Your task to perform on an android device: Go to wifi settings Image 0: 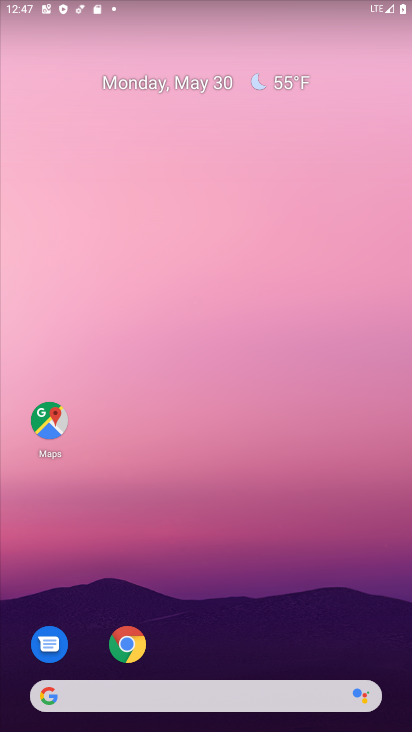
Step 0: click (359, 585)
Your task to perform on an android device: Go to wifi settings Image 1: 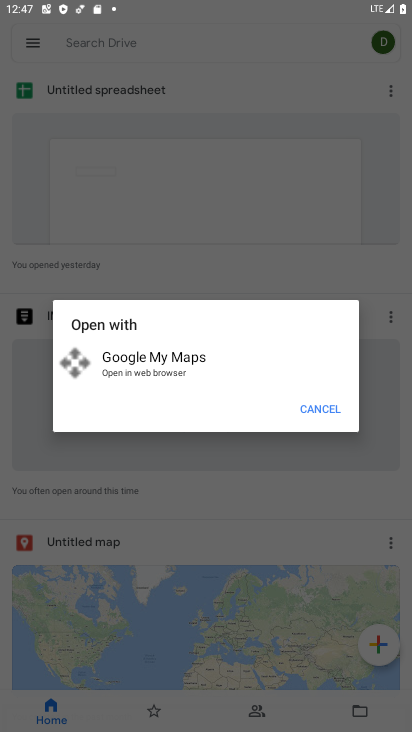
Step 1: press home button
Your task to perform on an android device: Go to wifi settings Image 2: 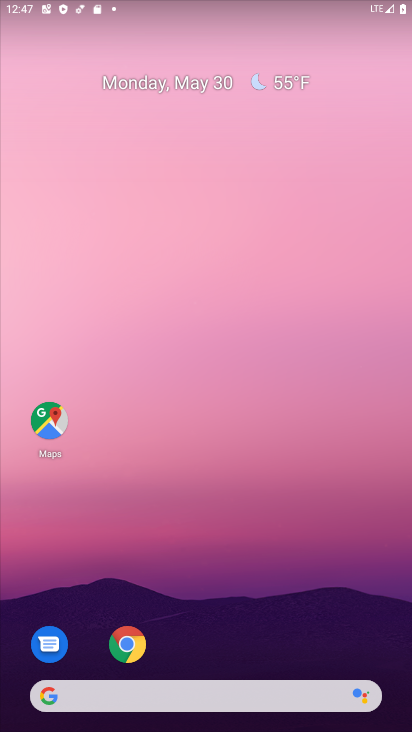
Step 2: drag from (328, 647) to (253, 164)
Your task to perform on an android device: Go to wifi settings Image 3: 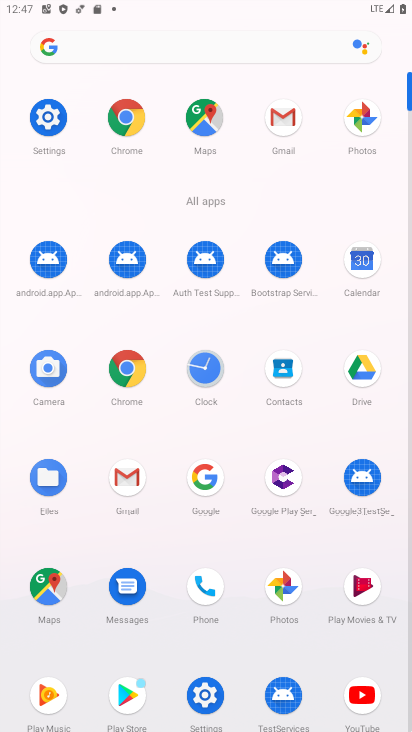
Step 3: click (52, 108)
Your task to perform on an android device: Go to wifi settings Image 4: 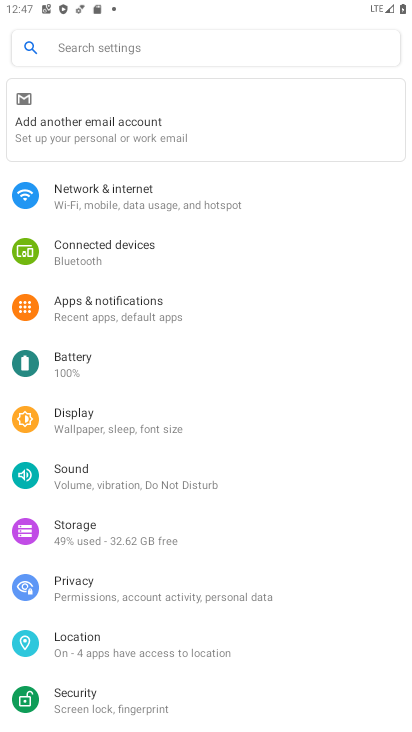
Step 4: click (69, 132)
Your task to perform on an android device: Go to wifi settings Image 5: 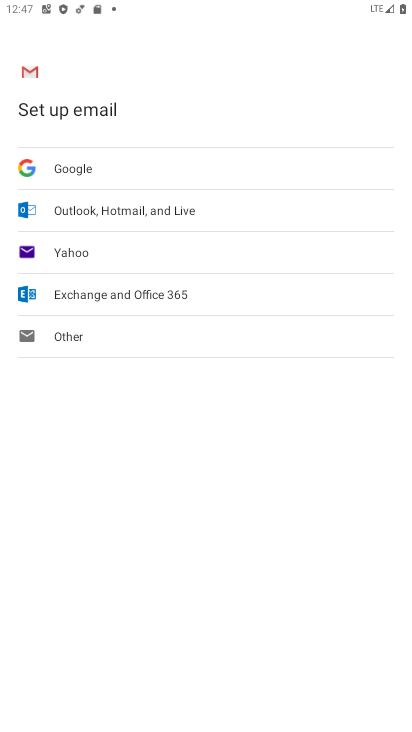
Step 5: click (138, 198)
Your task to perform on an android device: Go to wifi settings Image 6: 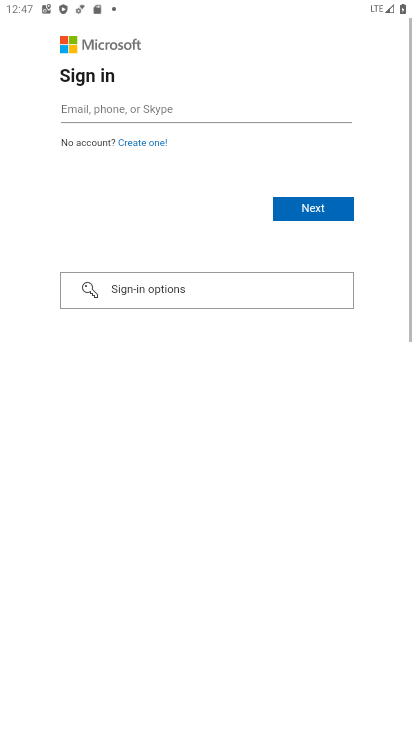
Step 6: press back button
Your task to perform on an android device: Go to wifi settings Image 7: 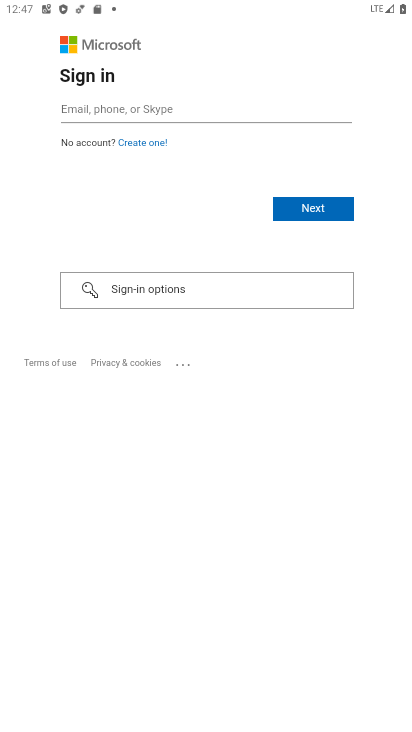
Step 7: press back button
Your task to perform on an android device: Go to wifi settings Image 8: 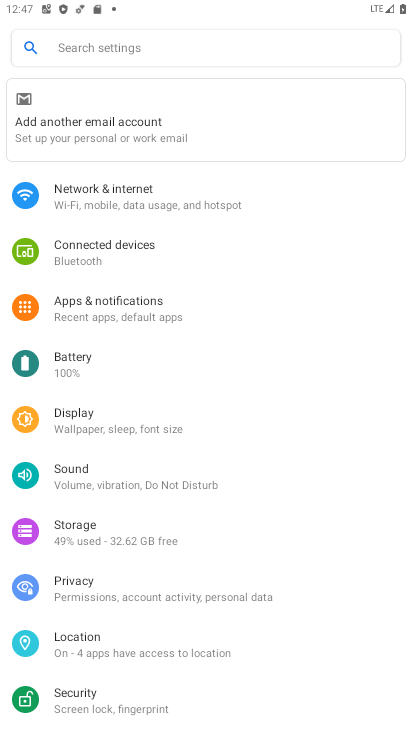
Step 8: click (286, 200)
Your task to perform on an android device: Go to wifi settings Image 9: 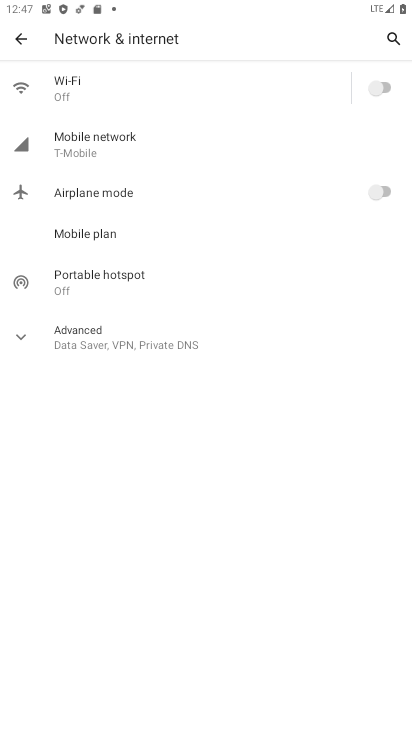
Step 9: task complete